Your task to perform on an android device: Check the news Image 0: 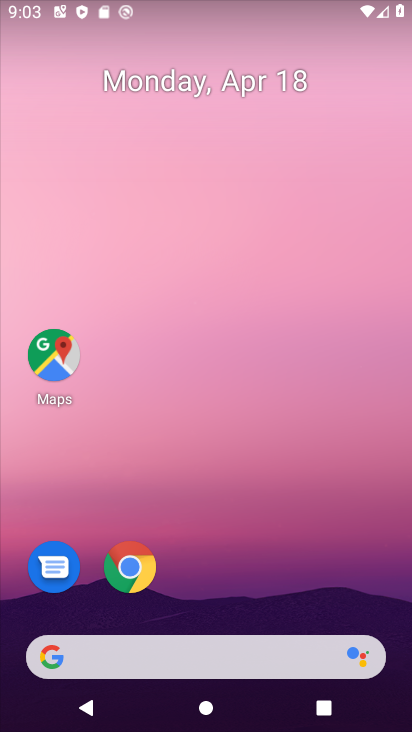
Step 0: click (227, 649)
Your task to perform on an android device: Check the news Image 1: 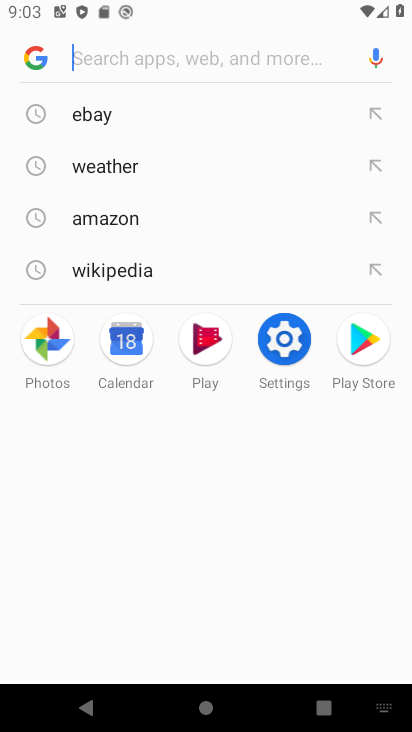
Step 1: type "news"
Your task to perform on an android device: Check the news Image 2: 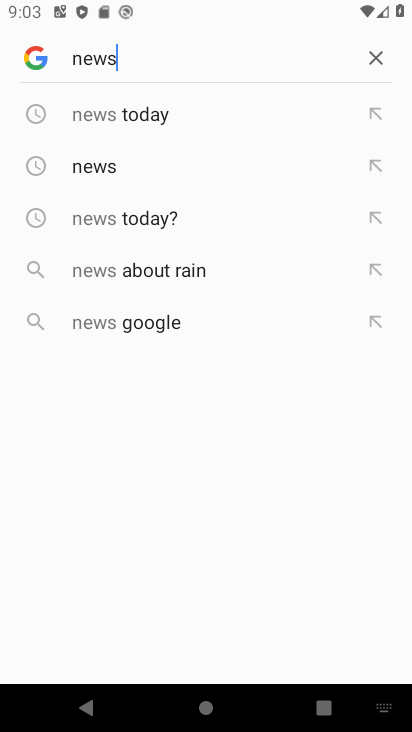
Step 2: click (121, 115)
Your task to perform on an android device: Check the news Image 3: 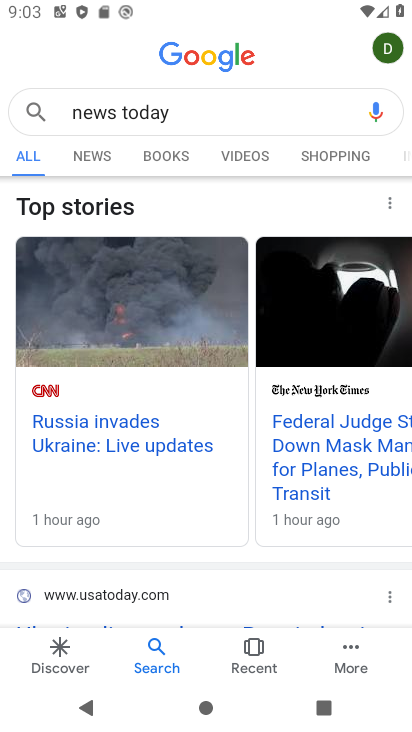
Step 3: task complete